Your task to perform on an android device: toggle pop-ups in chrome Image 0: 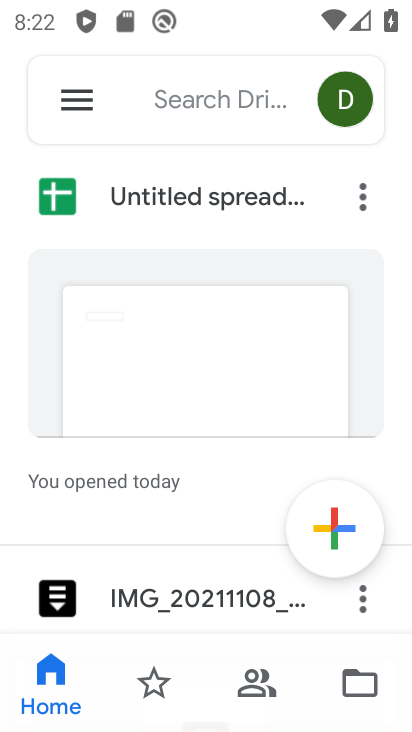
Step 0: press home button
Your task to perform on an android device: toggle pop-ups in chrome Image 1: 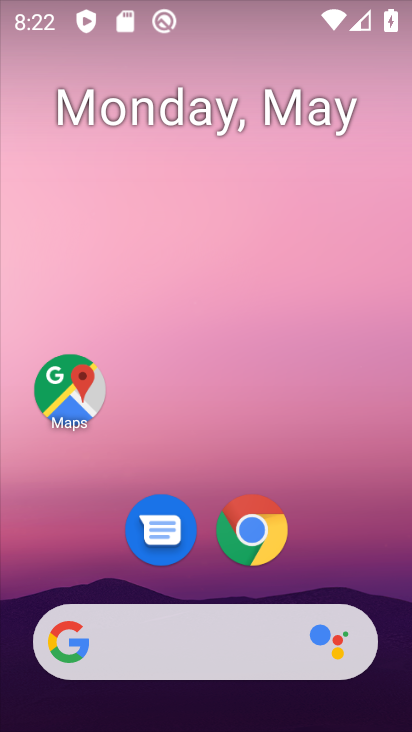
Step 1: click (267, 534)
Your task to perform on an android device: toggle pop-ups in chrome Image 2: 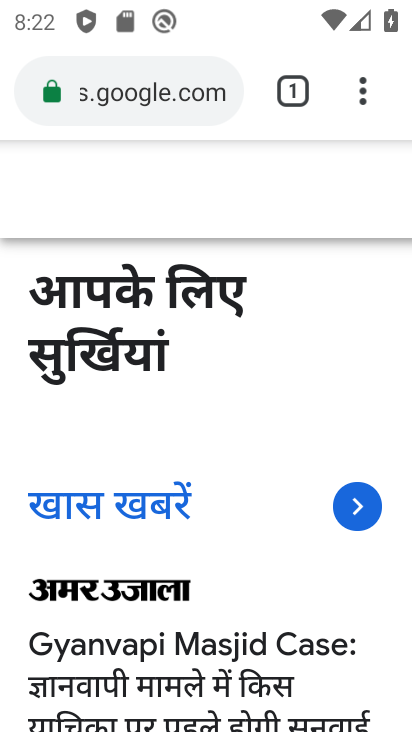
Step 2: click (364, 115)
Your task to perform on an android device: toggle pop-ups in chrome Image 3: 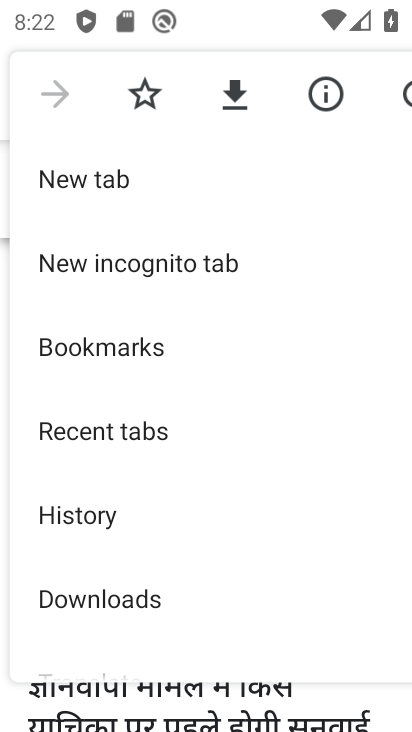
Step 3: drag from (204, 616) to (187, 182)
Your task to perform on an android device: toggle pop-ups in chrome Image 4: 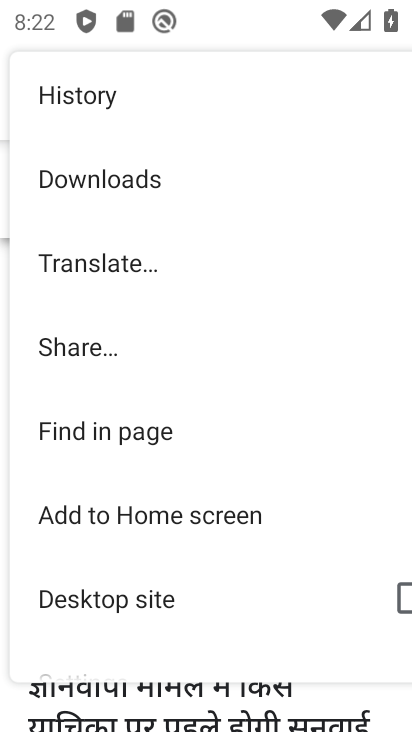
Step 4: drag from (223, 634) to (180, 184)
Your task to perform on an android device: toggle pop-ups in chrome Image 5: 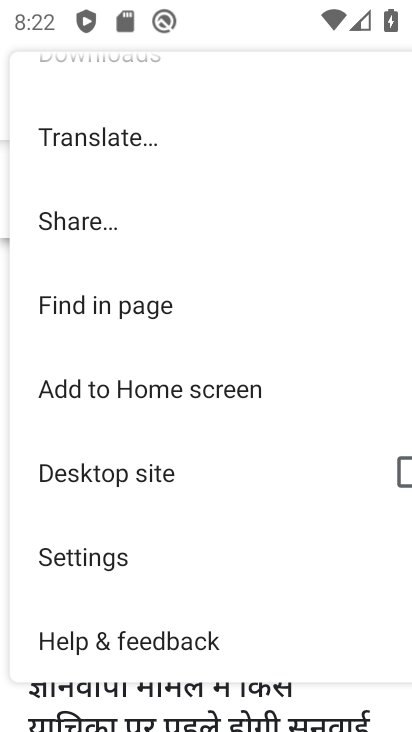
Step 5: click (96, 544)
Your task to perform on an android device: toggle pop-ups in chrome Image 6: 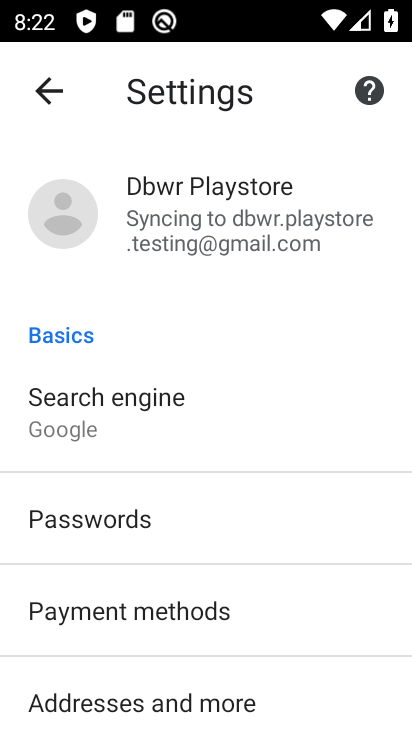
Step 6: drag from (185, 665) to (174, 166)
Your task to perform on an android device: toggle pop-ups in chrome Image 7: 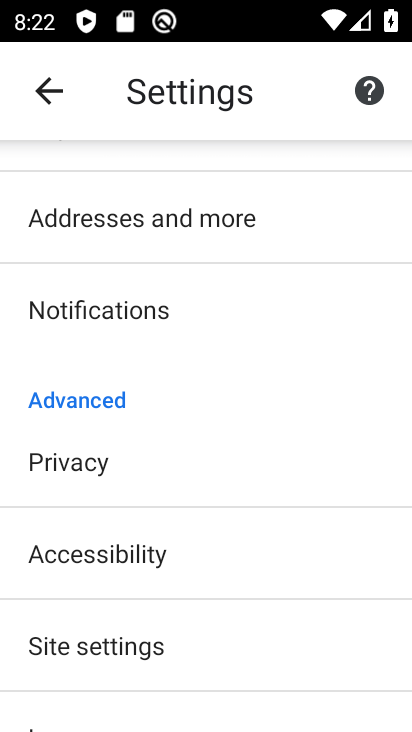
Step 7: click (181, 644)
Your task to perform on an android device: toggle pop-ups in chrome Image 8: 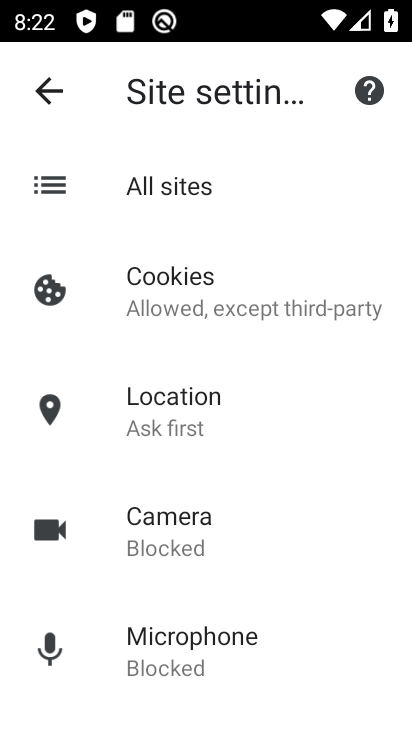
Step 8: drag from (297, 695) to (247, 231)
Your task to perform on an android device: toggle pop-ups in chrome Image 9: 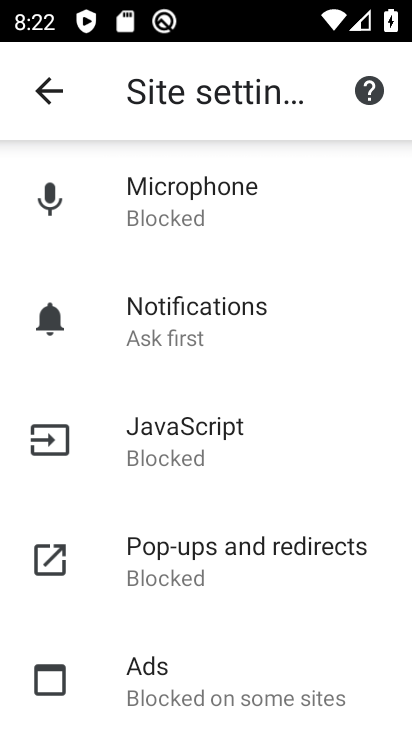
Step 9: click (228, 548)
Your task to perform on an android device: toggle pop-ups in chrome Image 10: 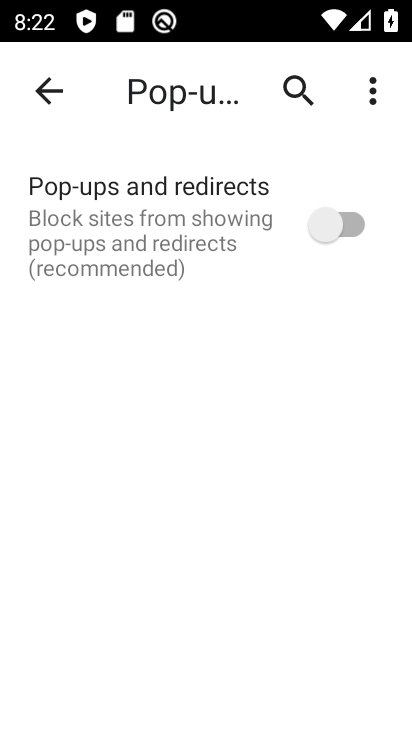
Step 10: click (328, 220)
Your task to perform on an android device: toggle pop-ups in chrome Image 11: 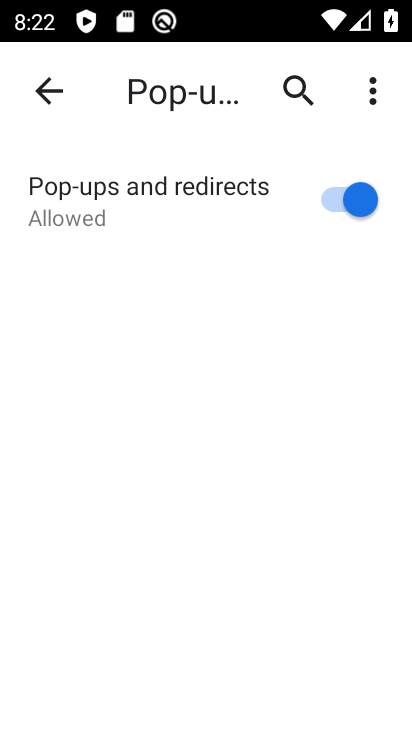
Step 11: task complete